Your task to perform on an android device: open app "Reddit" Image 0: 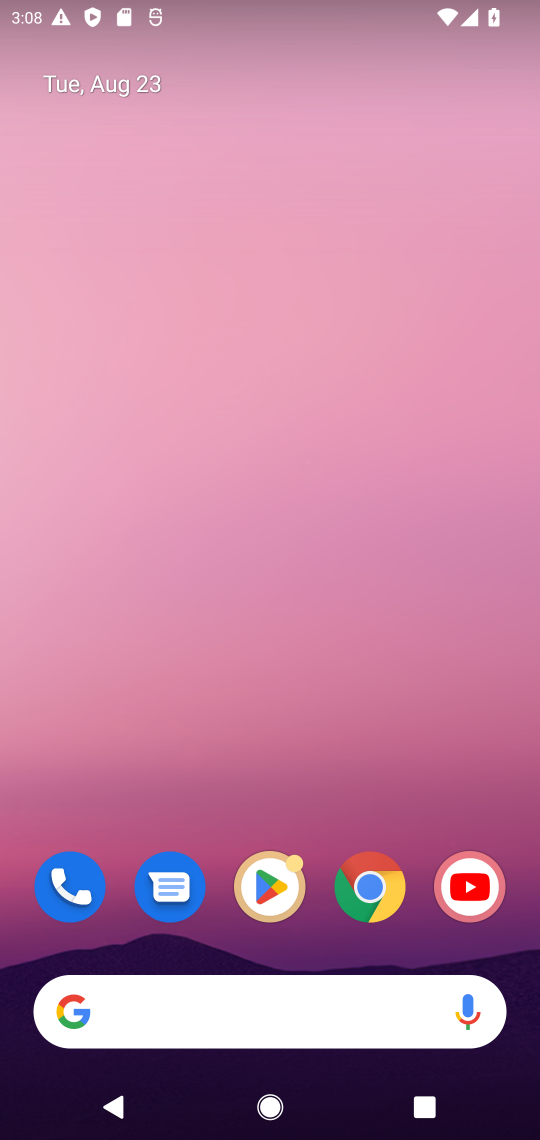
Step 0: click (268, 891)
Your task to perform on an android device: open app "Reddit" Image 1: 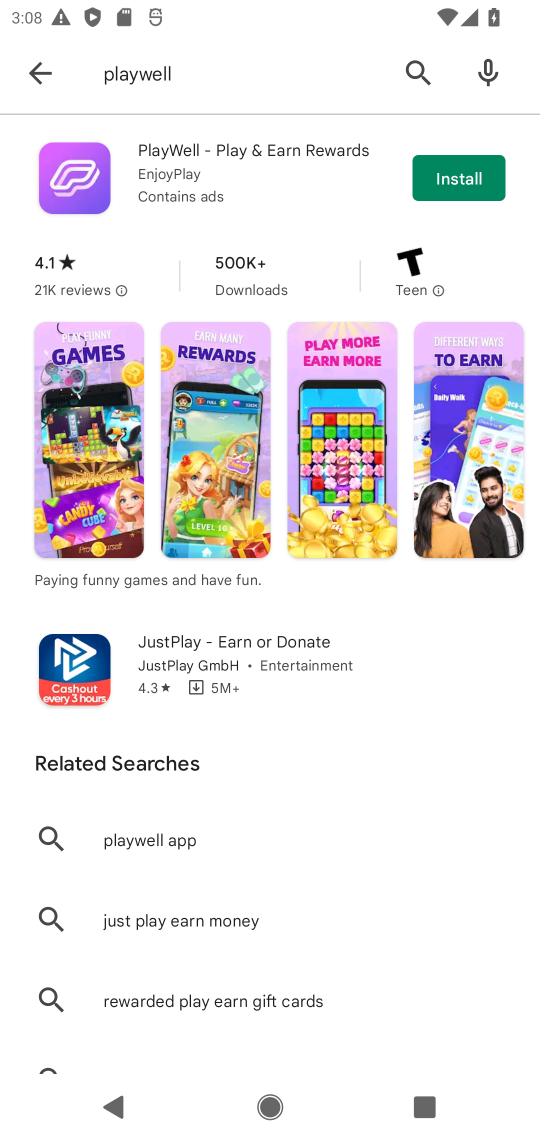
Step 1: click (42, 81)
Your task to perform on an android device: open app "Reddit" Image 2: 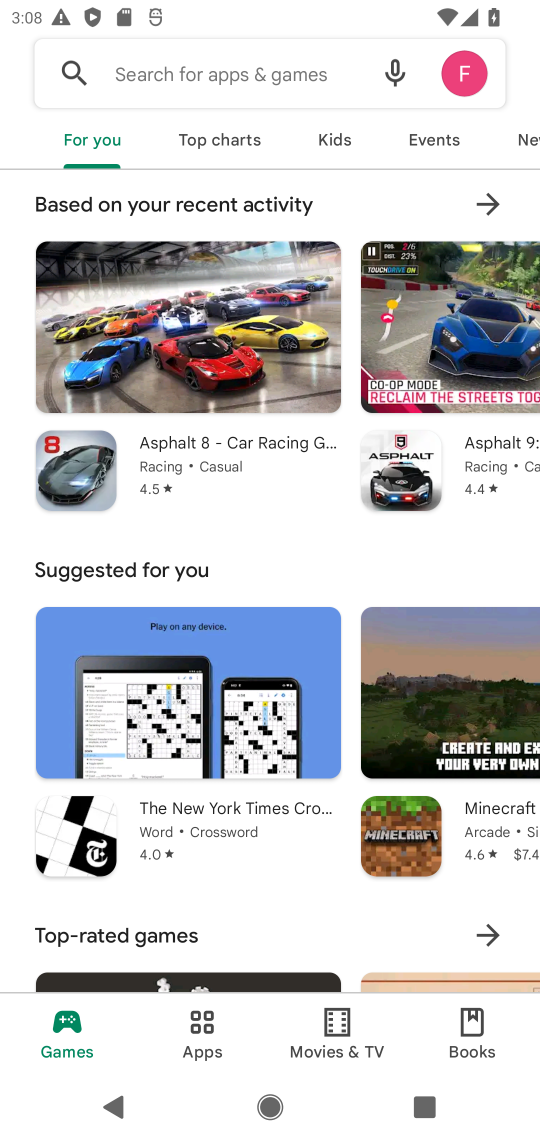
Step 2: click (211, 81)
Your task to perform on an android device: open app "Reddit" Image 3: 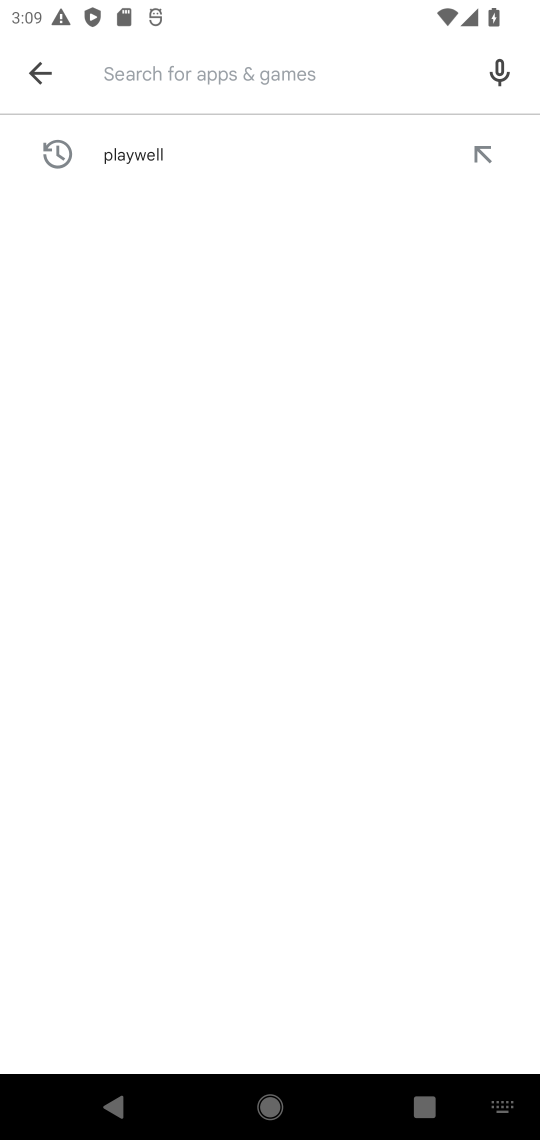
Step 3: type "Reddit"
Your task to perform on an android device: open app "Reddit" Image 4: 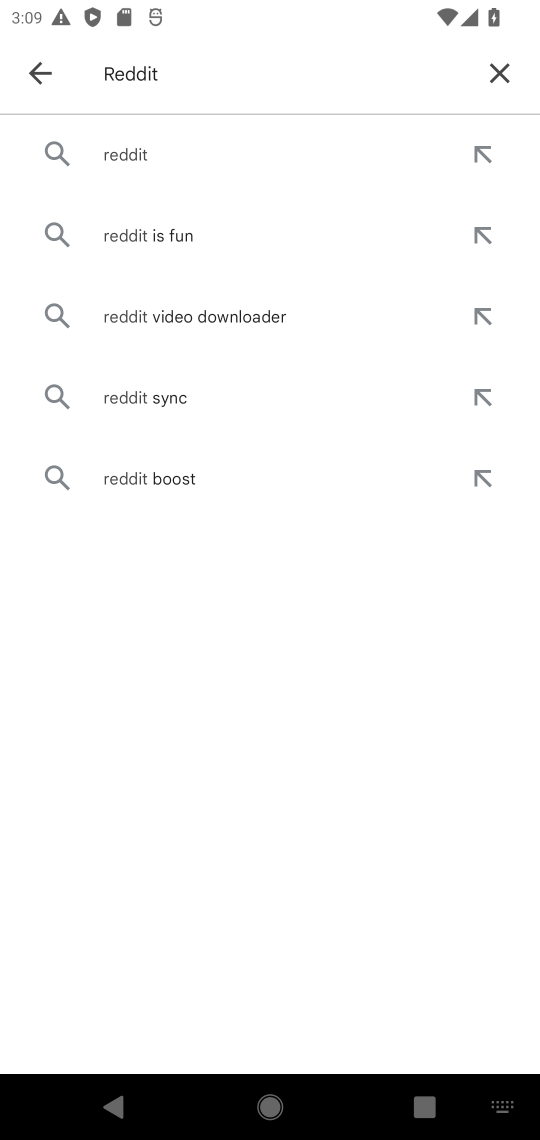
Step 4: click (124, 153)
Your task to perform on an android device: open app "Reddit" Image 5: 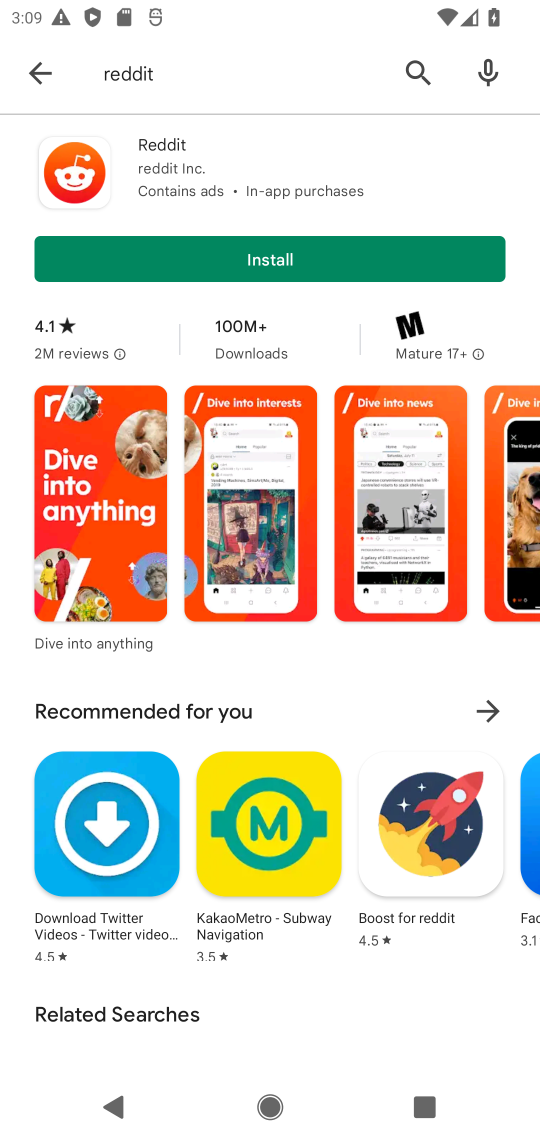
Step 5: click (278, 256)
Your task to perform on an android device: open app "Reddit" Image 6: 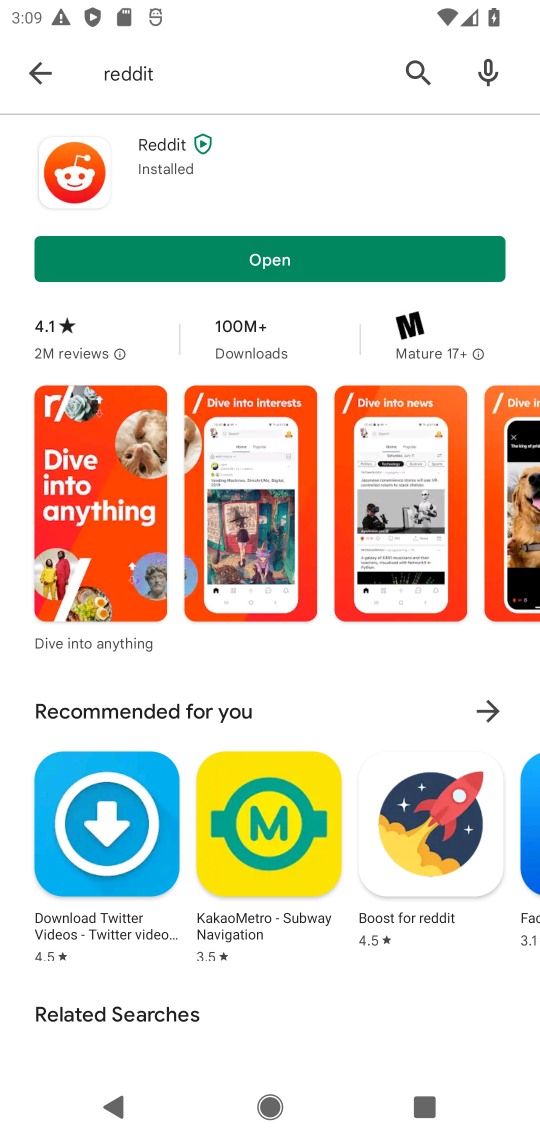
Step 6: click (278, 256)
Your task to perform on an android device: open app "Reddit" Image 7: 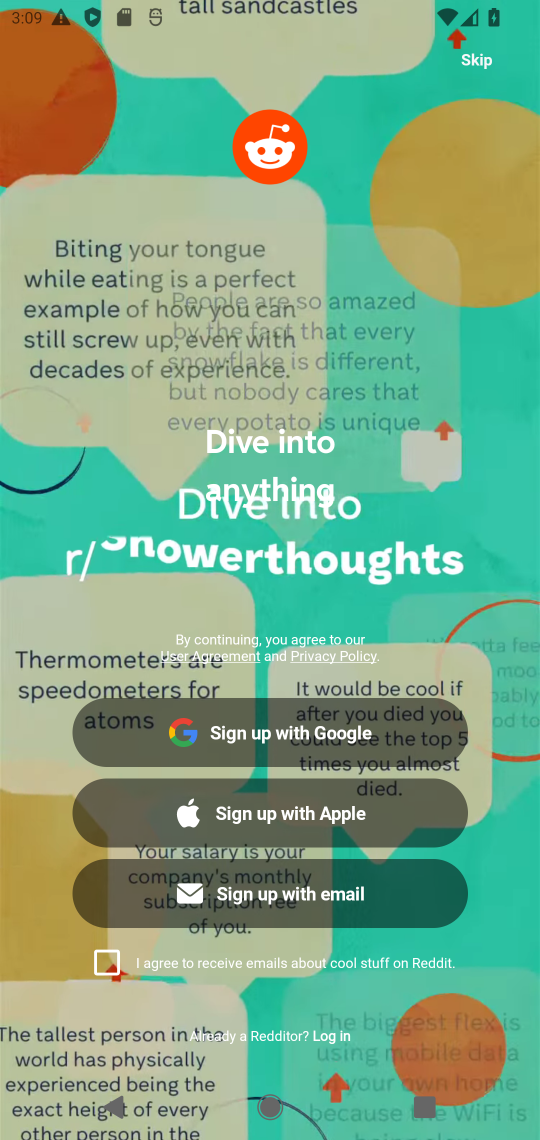
Step 7: task complete